Your task to perform on an android device: Open Chrome and go to the settings page Image 0: 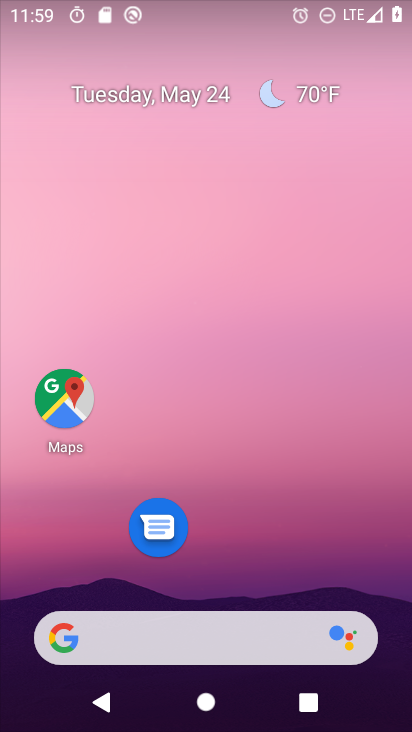
Step 0: drag from (265, 511) to (323, 75)
Your task to perform on an android device: Open Chrome and go to the settings page Image 1: 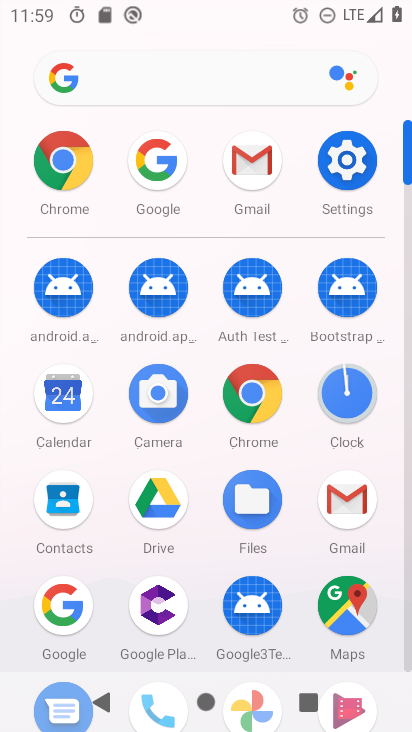
Step 1: click (258, 390)
Your task to perform on an android device: Open Chrome and go to the settings page Image 2: 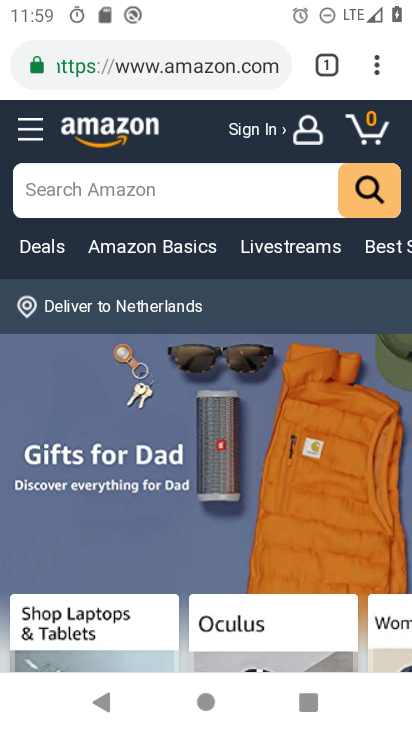
Step 2: click (369, 76)
Your task to perform on an android device: Open Chrome and go to the settings page Image 3: 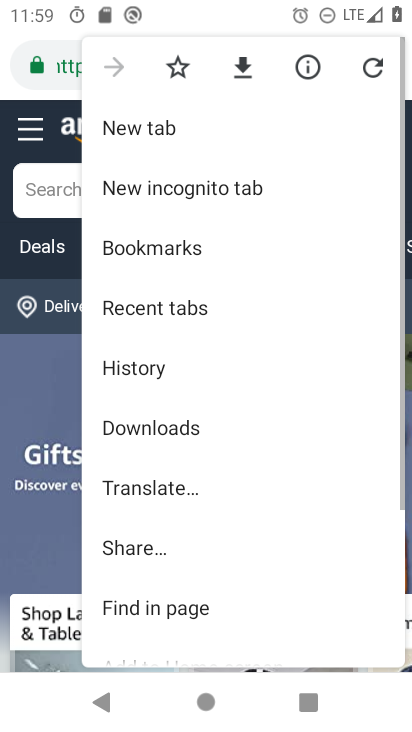
Step 3: drag from (227, 556) to (279, 163)
Your task to perform on an android device: Open Chrome and go to the settings page Image 4: 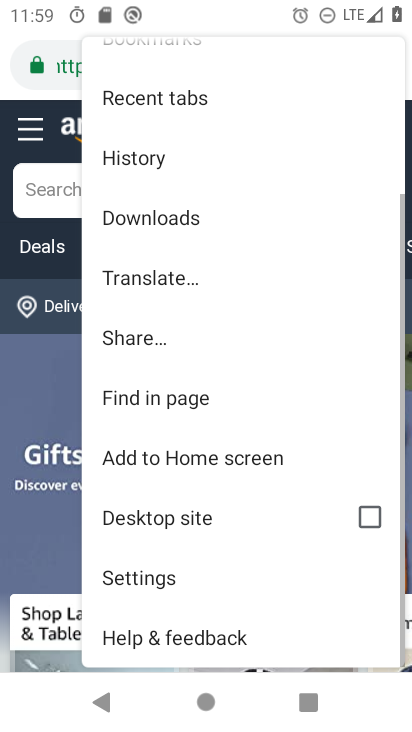
Step 4: click (178, 570)
Your task to perform on an android device: Open Chrome and go to the settings page Image 5: 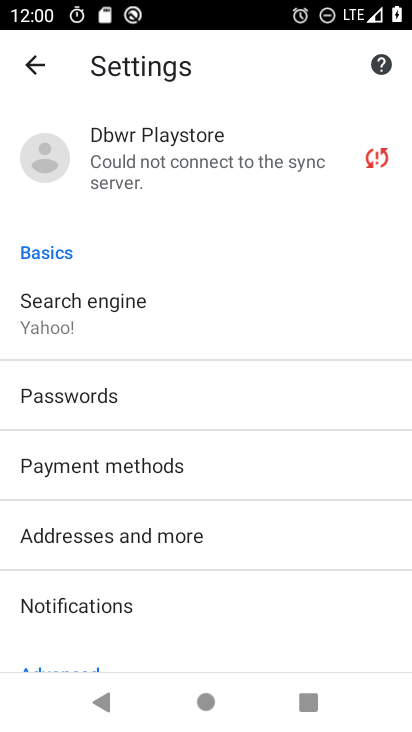
Step 5: task complete